Your task to perform on an android device: Set an alarm for 7pm Image 0: 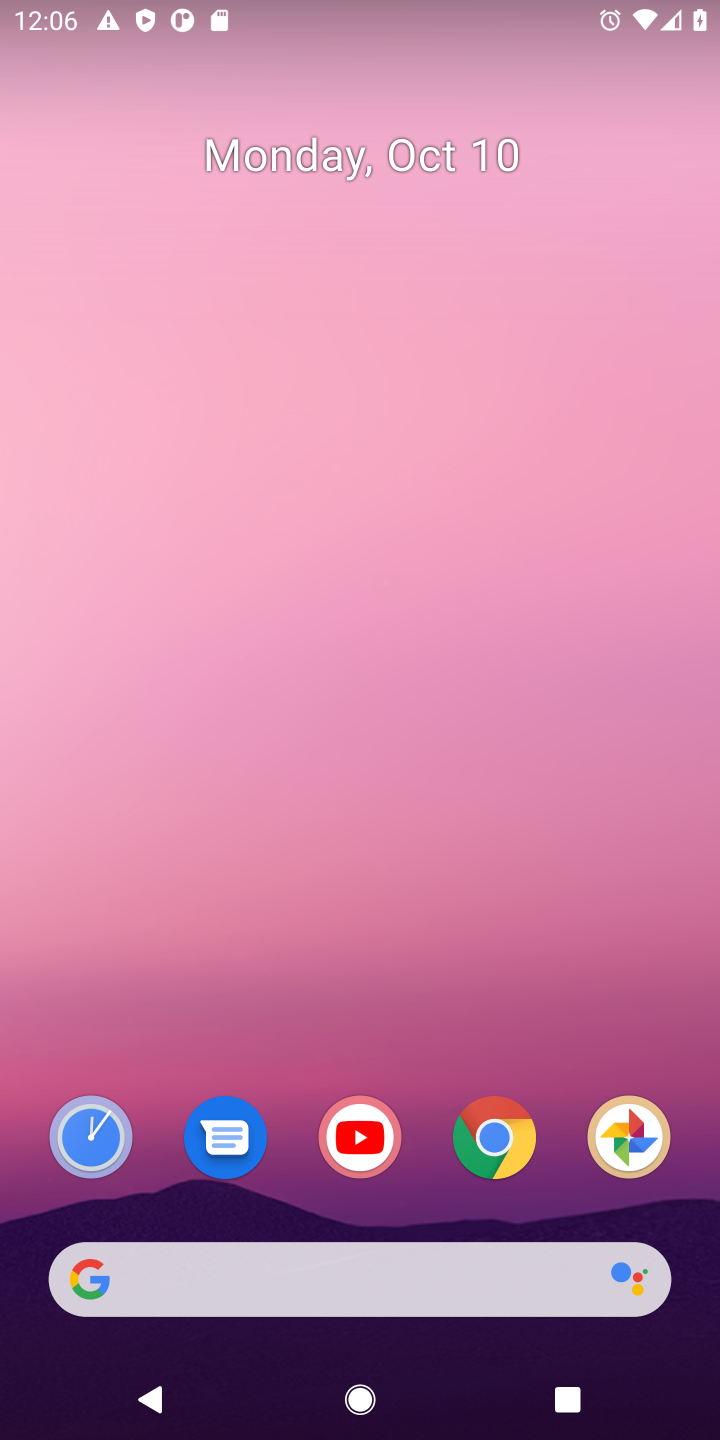
Step 0: drag from (399, 1060) to (673, 640)
Your task to perform on an android device: Set an alarm for 7pm Image 1: 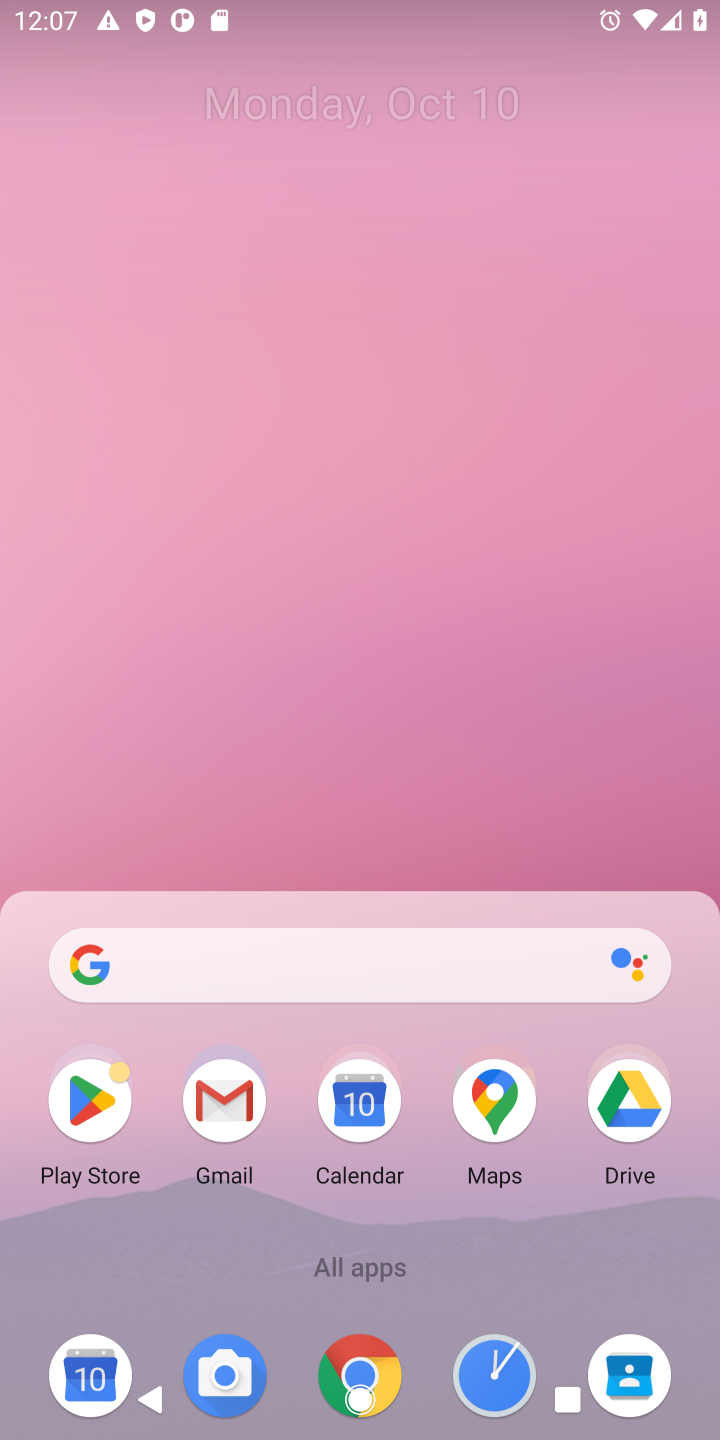
Step 1: click (485, 661)
Your task to perform on an android device: Set an alarm for 7pm Image 2: 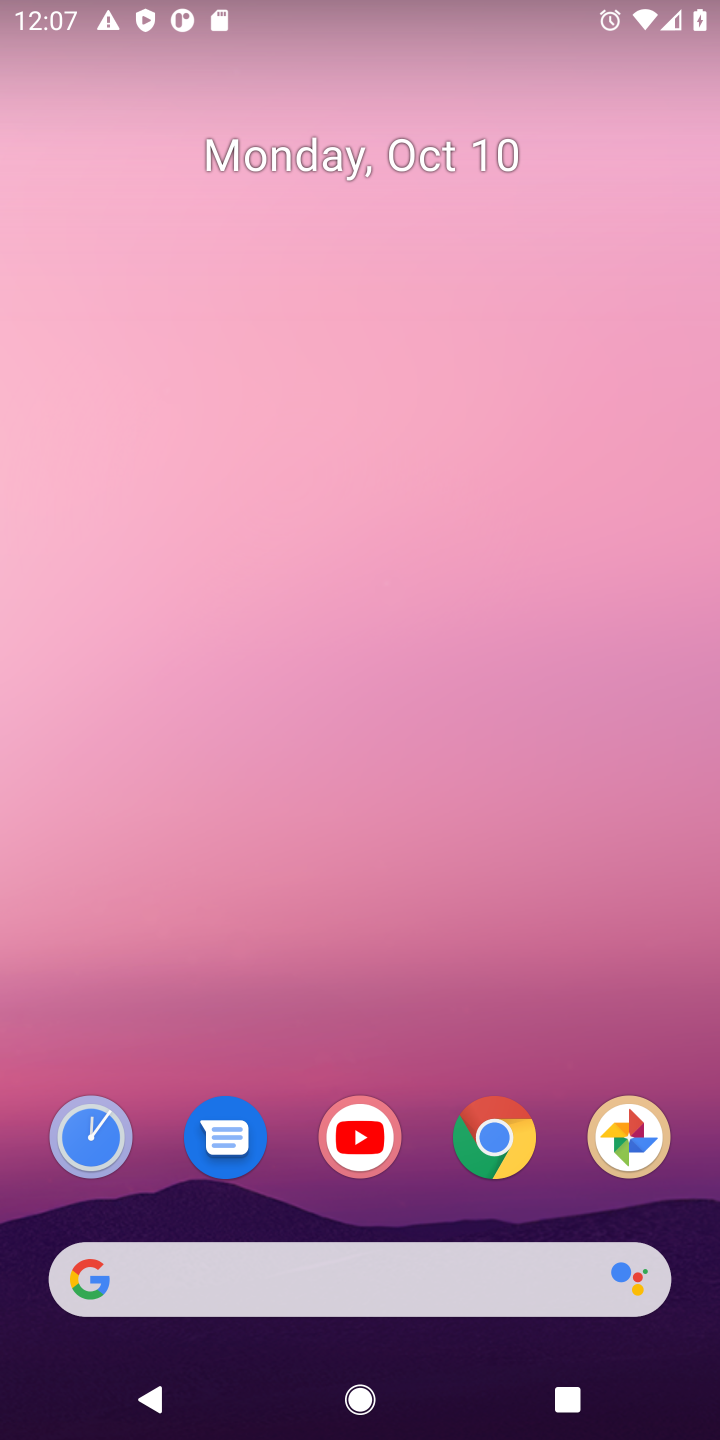
Step 2: drag from (598, 1039) to (490, 4)
Your task to perform on an android device: Set an alarm for 7pm Image 3: 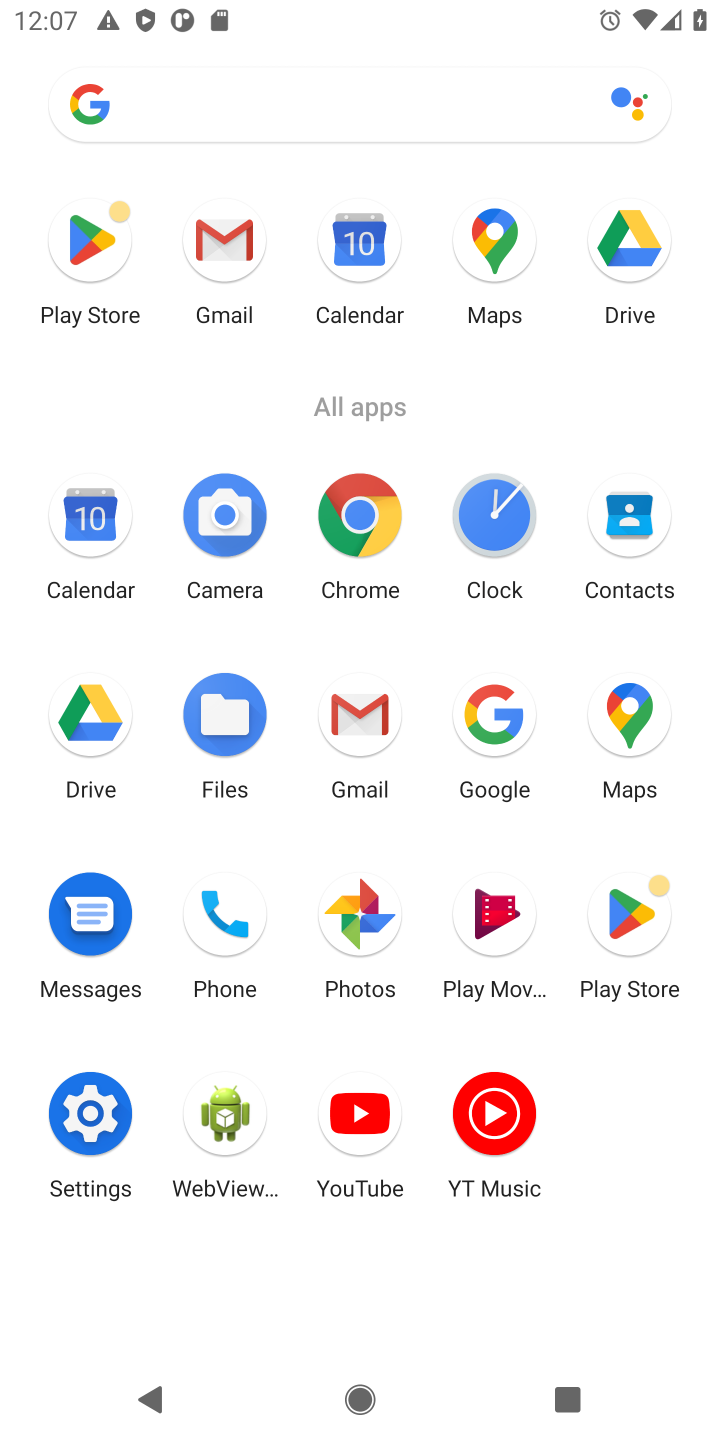
Step 3: click (497, 506)
Your task to perform on an android device: Set an alarm for 7pm Image 4: 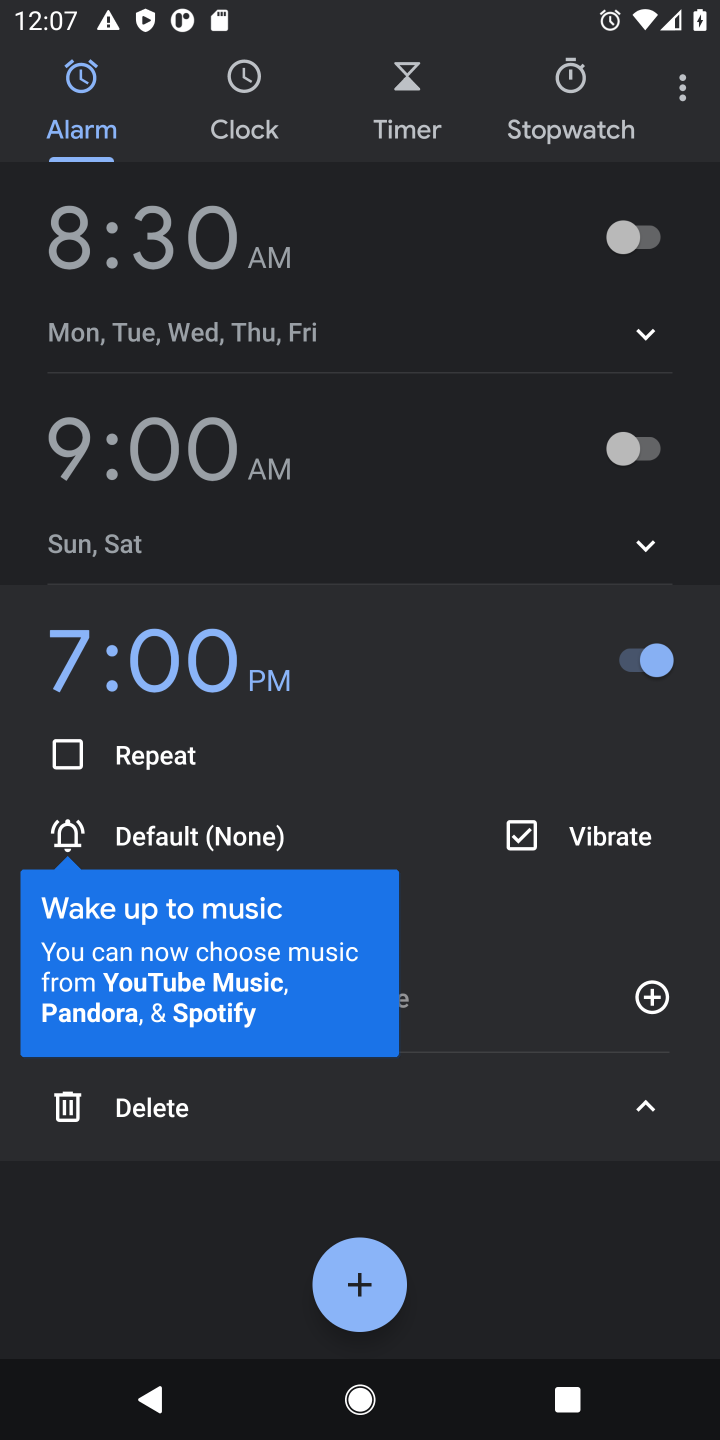
Step 4: click (360, 1297)
Your task to perform on an android device: Set an alarm for 7pm Image 5: 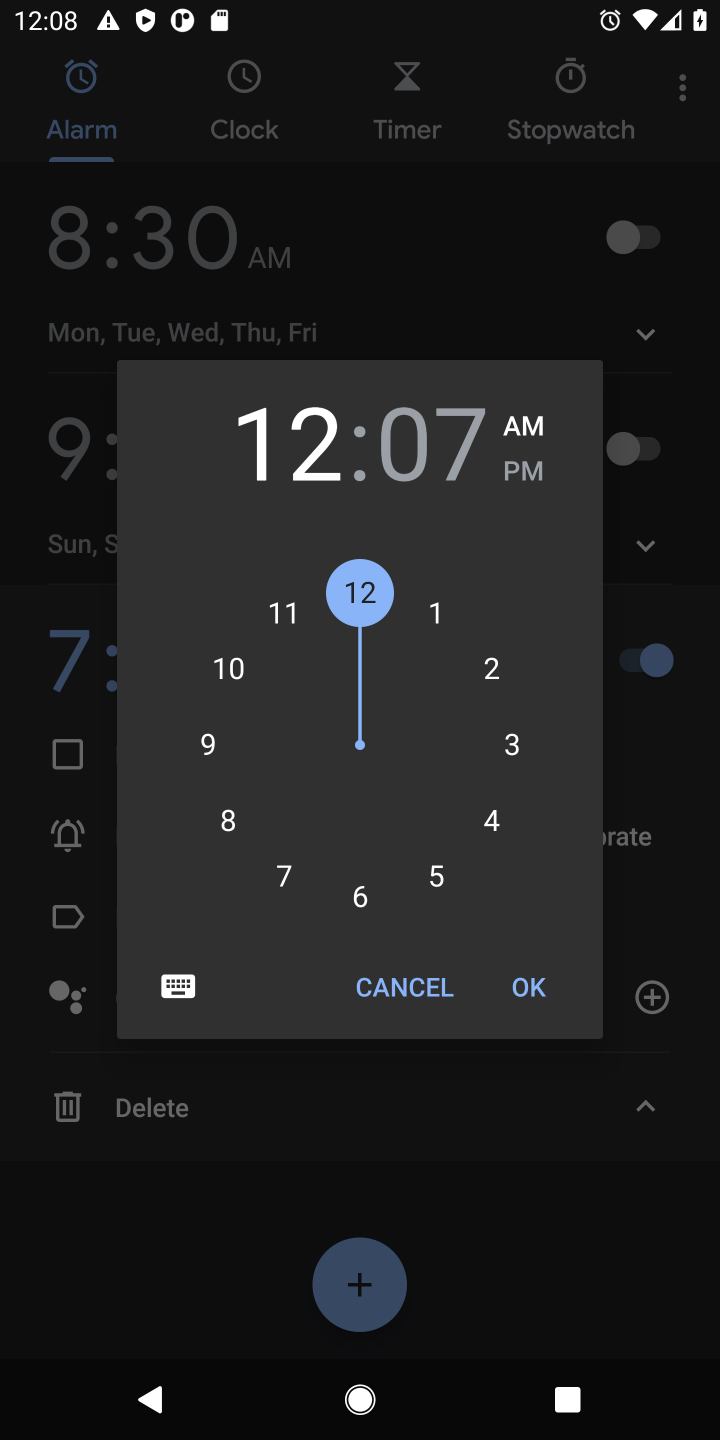
Step 5: click (282, 877)
Your task to perform on an android device: Set an alarm for 7pm Image 6: 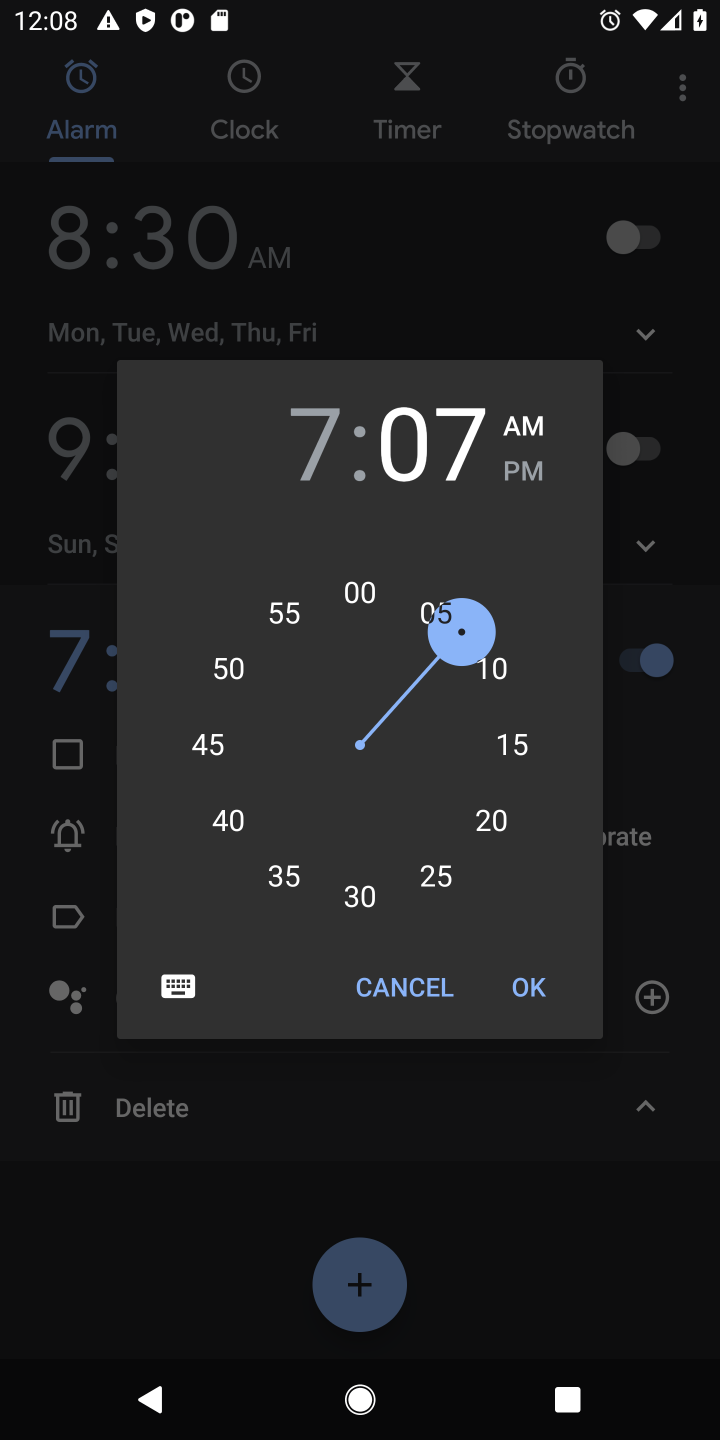
Step 6: click (361, 589)
Your task to perform on an android device: Set an alarm for 7pm Image 7: 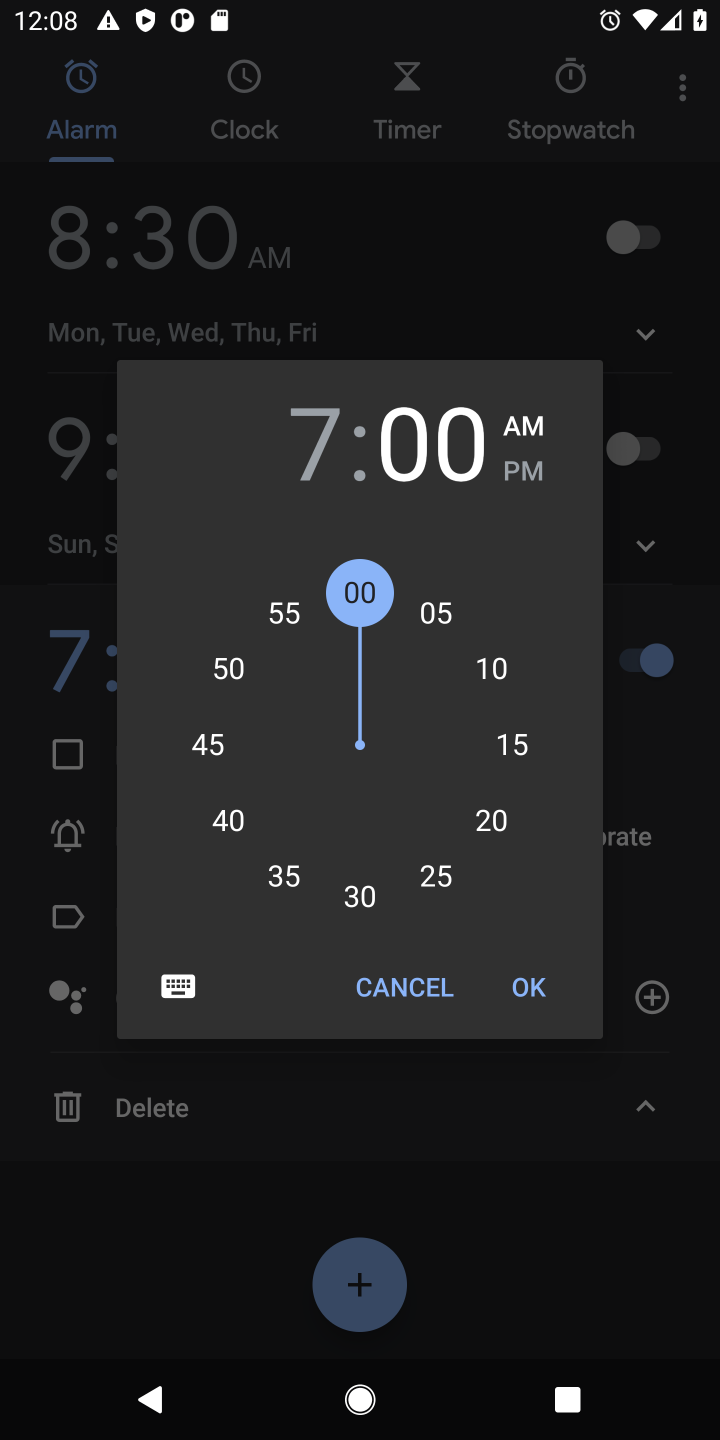
Step 7: click (523, 472)
Your task to perform on an android device: Set an alarm for 7pm Image 8: 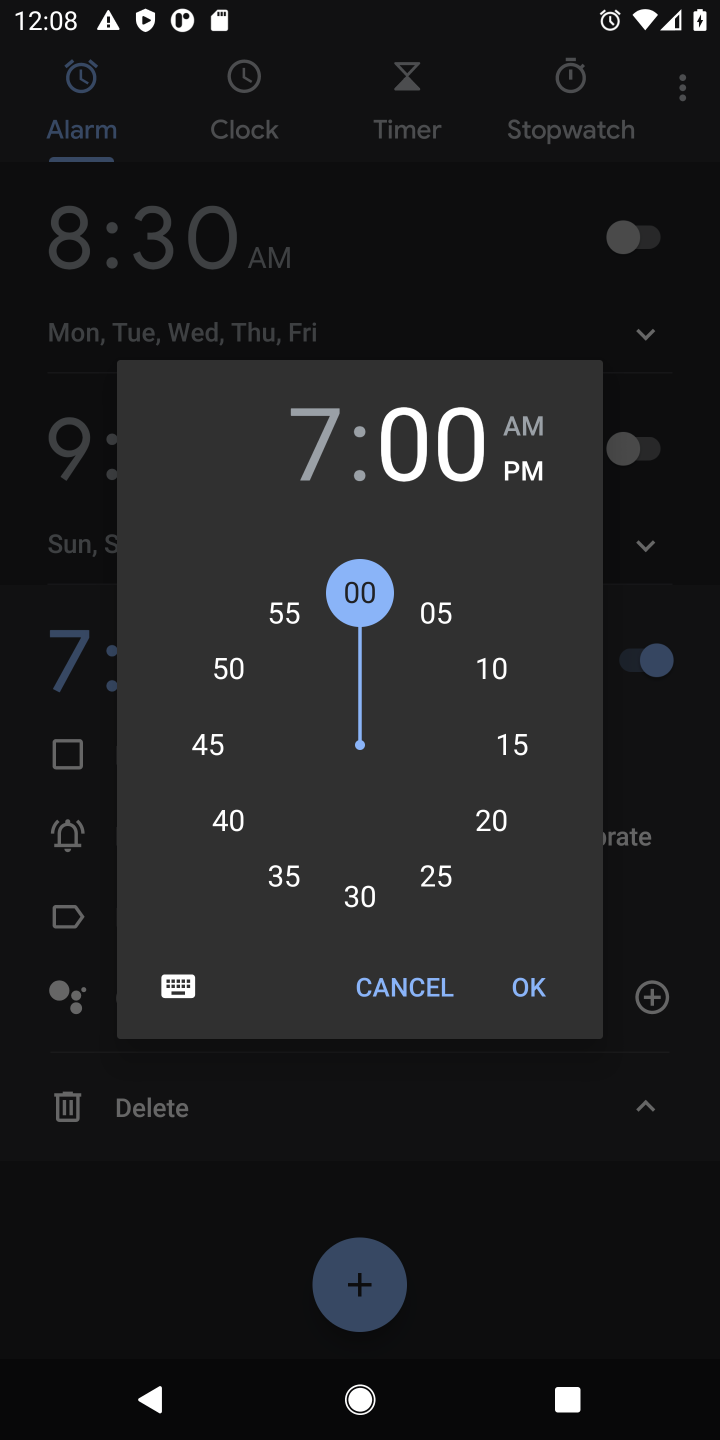
Step 8: click (526, 991)
Your task to perform on an android device: Set an alarm for 7pm Image 9: 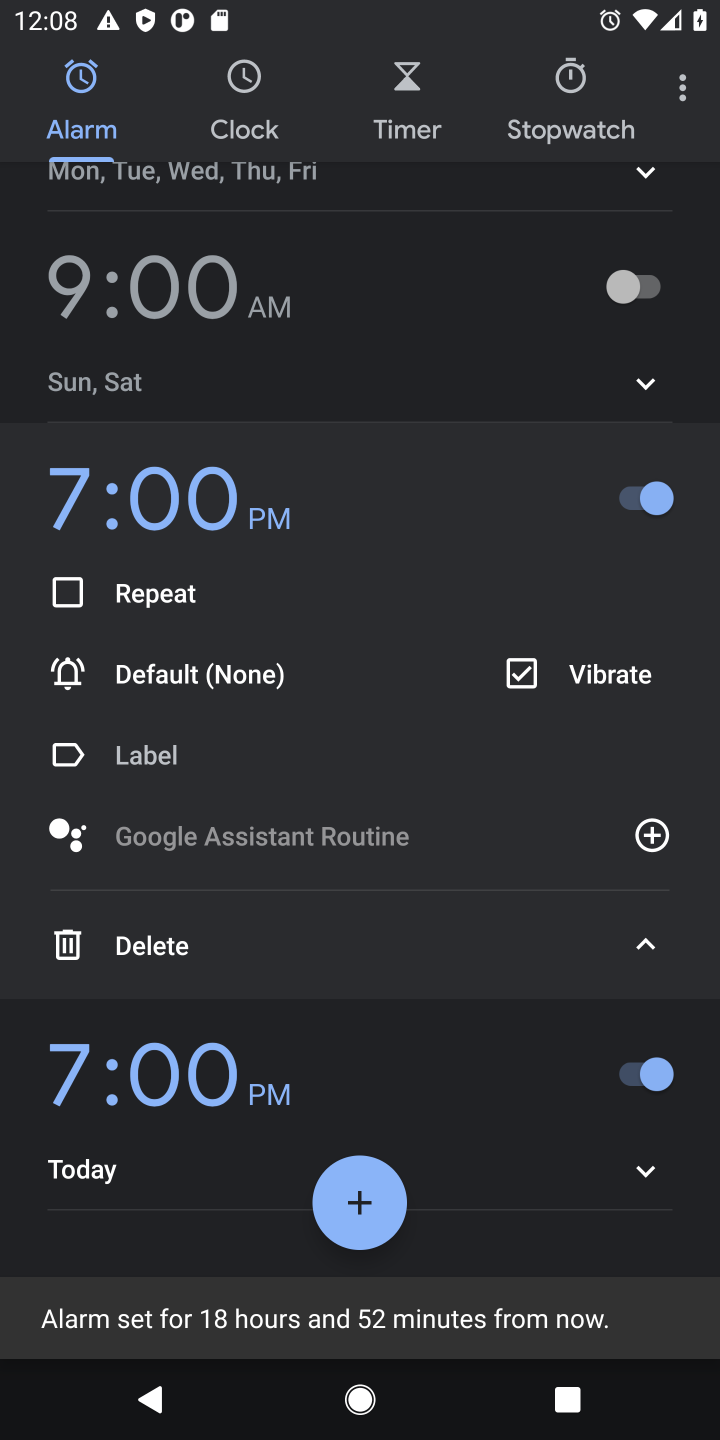
Step 9: task complete